Your task to perform on an android device: toggle improve location accuracy Image 0: 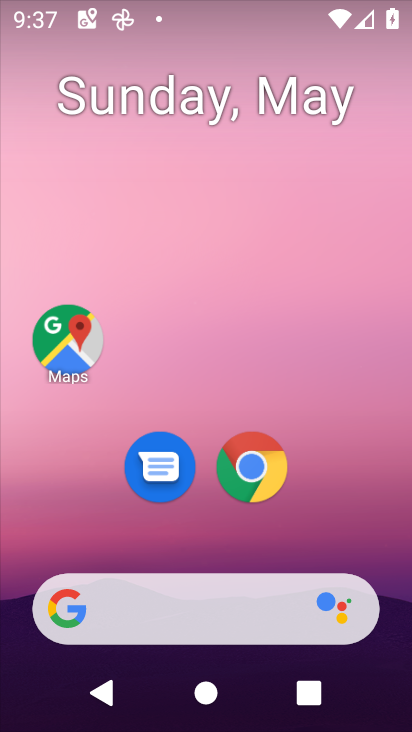
Step 0: drag from (357, 532) to (330, 70)
Your task to perform on an android device: toggle improve location accuracy Image 1: 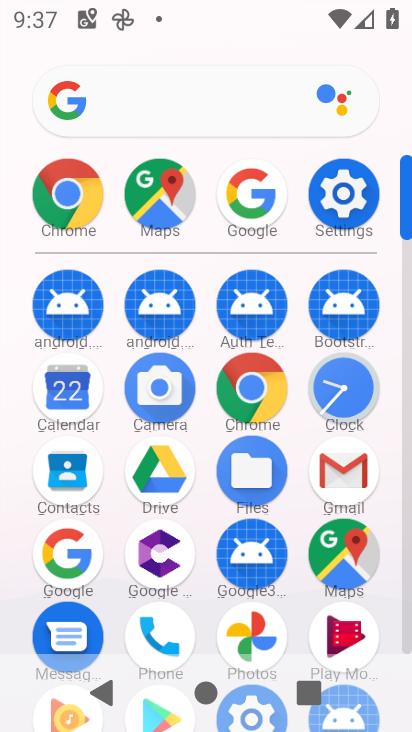
Step 1: click (356, 192)
Your task to perform on an android device: toggle improve location accuracy Image 2: 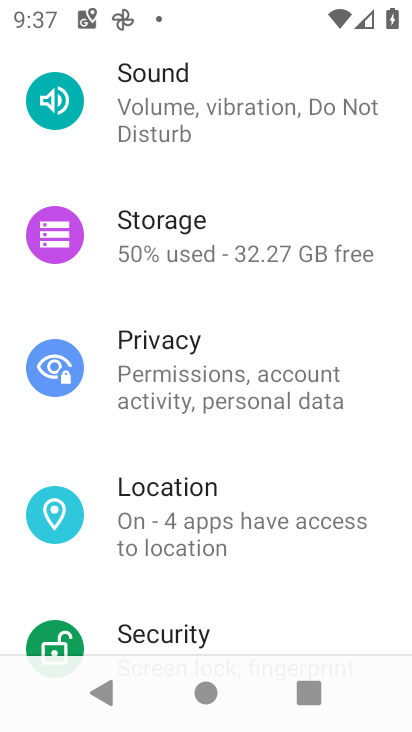
Step 2: click (233, 522)
Your task to perform on an android device: toggle improve location accuracy Image 3: 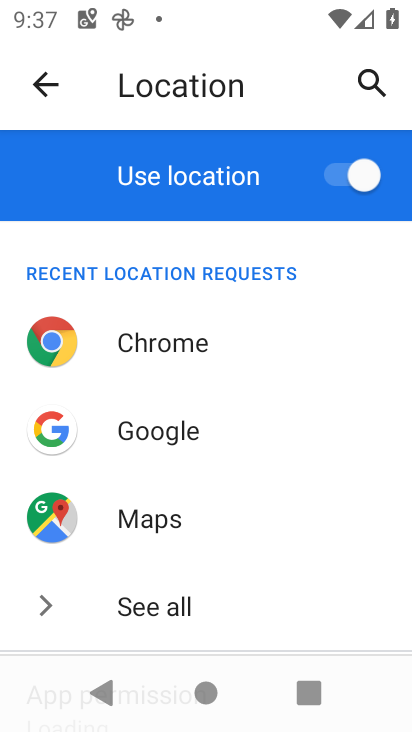
Step 3: drag from (239, 564) to (278, 145)
Your task to perform on an android device: toggle improve location accuracy Image 4: 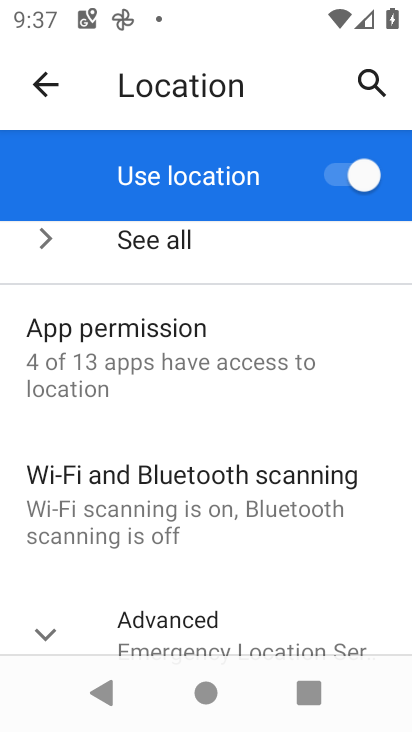
Step 4: drag from (252, 568) to (227, 312)
Your task to perform on an android device: toggle improve location accuracy Image 5: 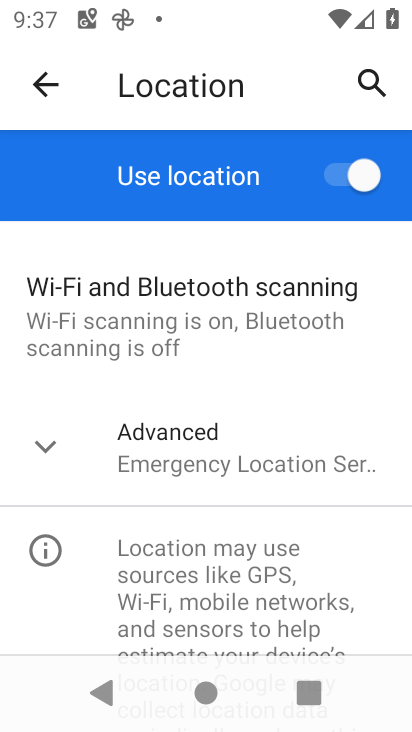
Step 5: click (172, 446)
Your task to perform on an android device: toggle improve location accuracy Image 6: 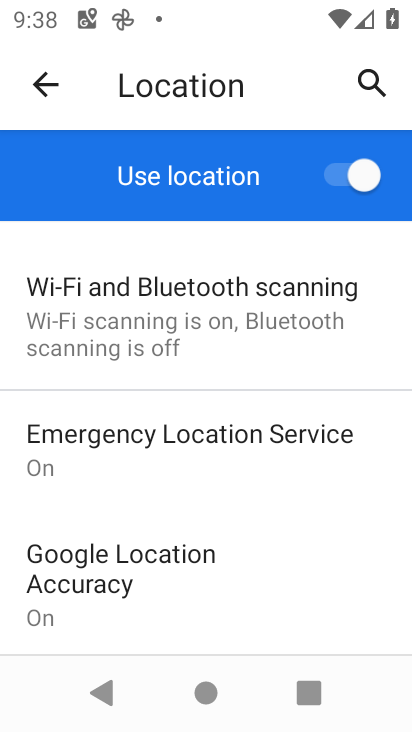
Step 6: click (192, 585)
Your task to perform on an android device: toggle improve location accuracy Image 7: 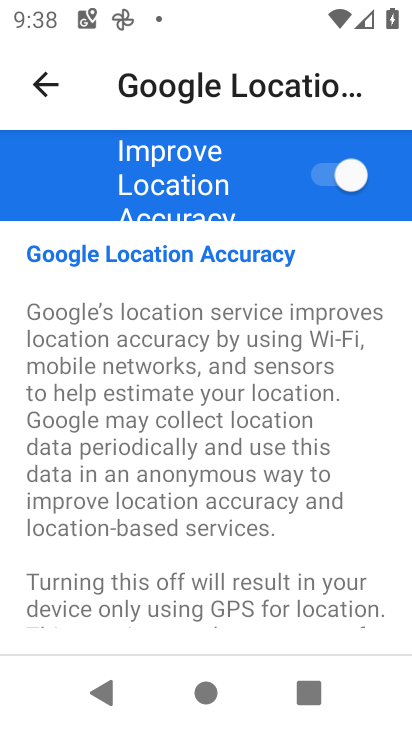
Step 7: click (352, 173)
Your task to perform on an android device: toggle improve location accuracy Image 8: 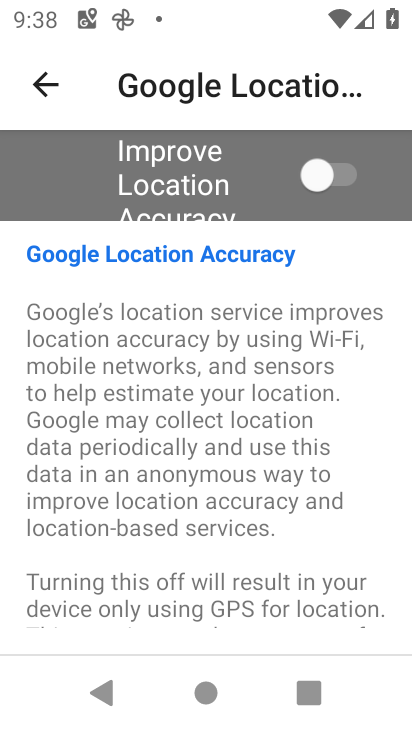
Step 8: task complete